Your task to perform on an android device: check google app version Image 0: 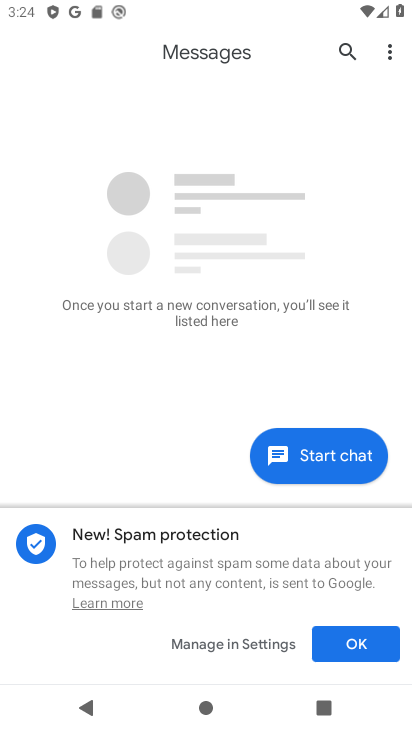
Step 0: press home button
Your task to perform on an android device: check google app version Image 1: 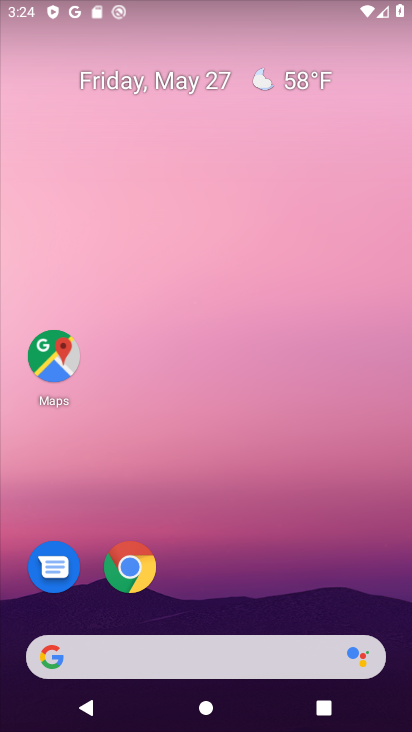
Step 1: drag from (210, 621) to (233, 80)
Your task to perform on an android device: check google app version Image 2: 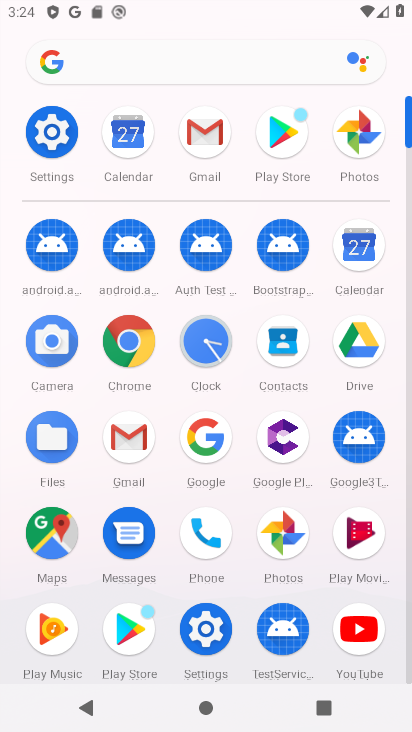
Step 2: click (207, 432)
Your task to perform on an android device: check google app version Image 3: 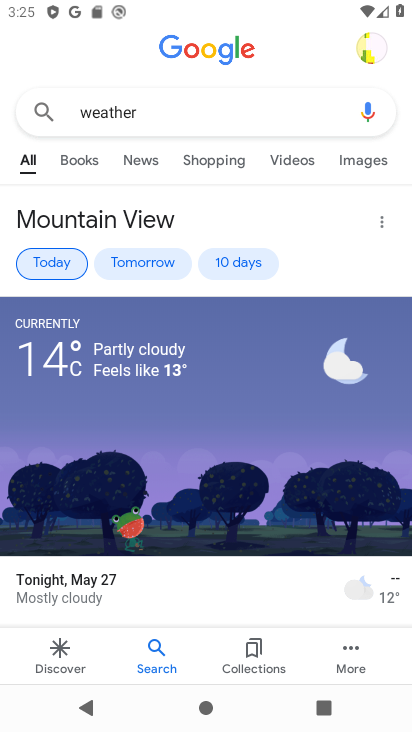
Step 3: click (352, 646)
Your task to perform on an android device: check google app version Image 4: 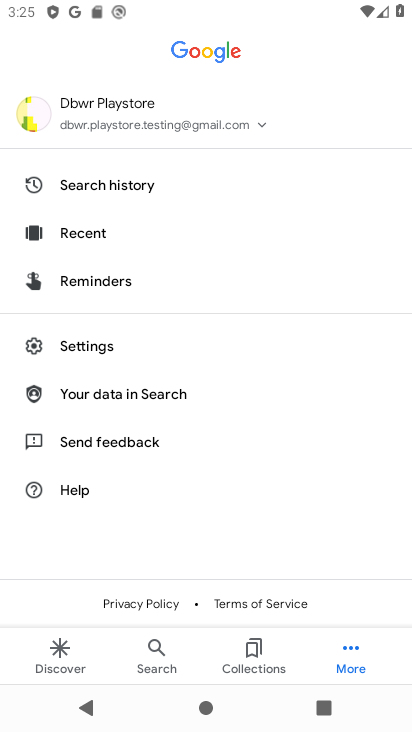
Step 4: click (118, 342)
Your task to perform on an android device: check google app version Image 5: 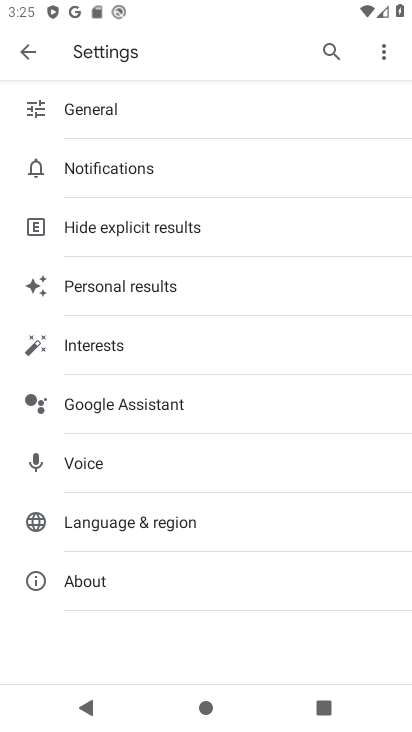
Step 5: click (123, 584)
Your task to perform on an android device: check google app version Image 6: 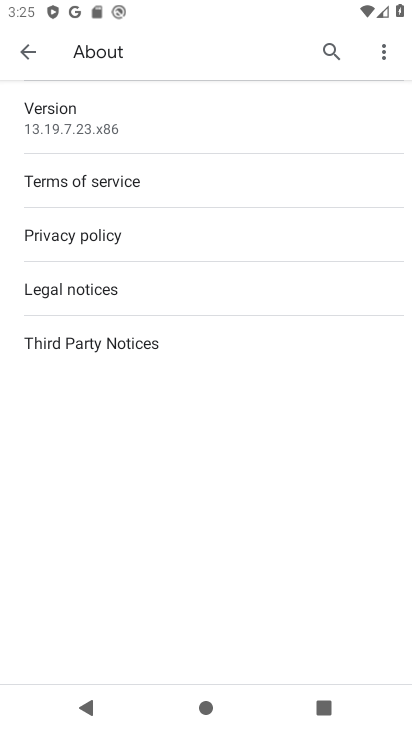
Step 6: task complete